Your task to perform on an android device: open wifi settings Image 0: 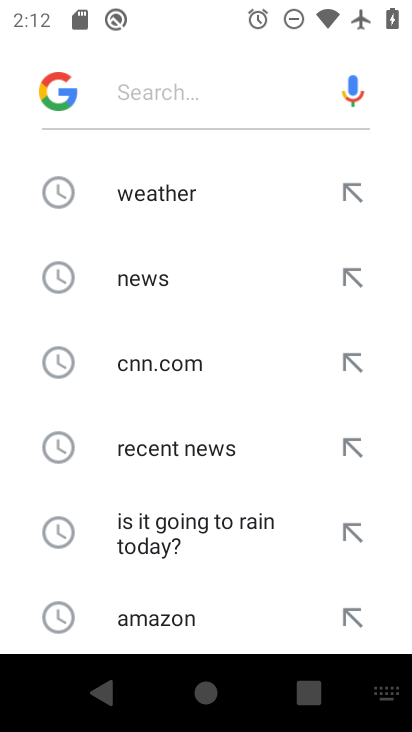
Step 0: press home button
Your task to perform on an android device: open wifi settings Image 1: 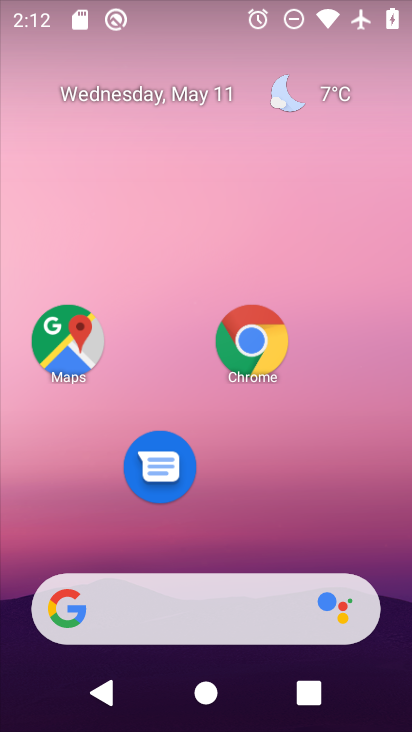
Step 1: drag from (164, 609) to (293, 116)
Your task to perform on an android device: open wifi settings Image 2: 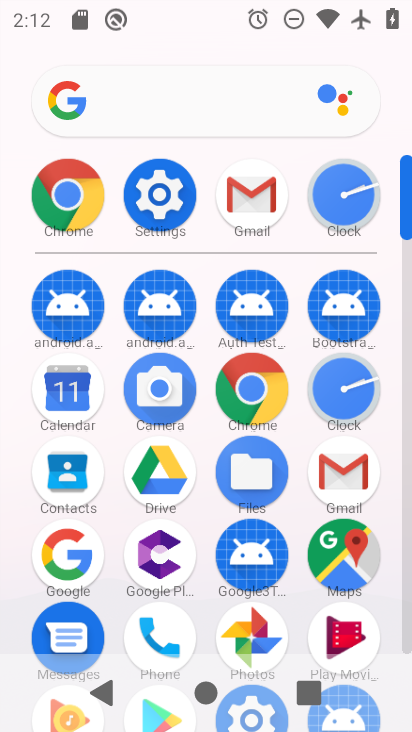
Step 2: click (167, 204)
Your task to perform on an android device: open wifi settings Image 3: 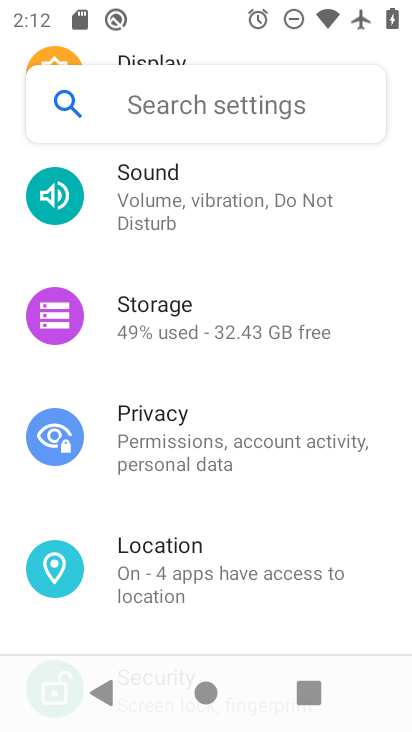
Step 3: drag from (297, 161) to (145, 562)
Your task to perform on an android device: open wifi settings Image 4: 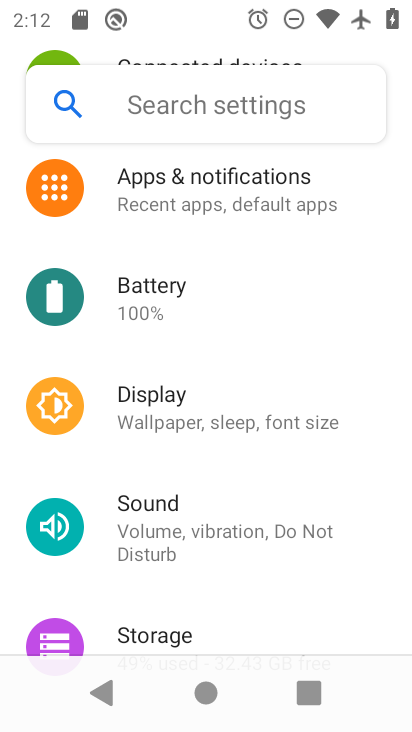
Step 4: drag from (273, 171) to (184, 479)
Your task to perform on an android device: open wifi settings Image 5: 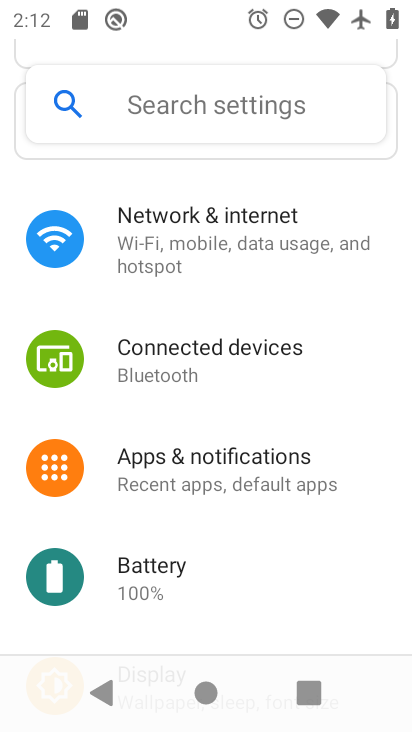
Step 5: click (244, 224)
Your task to perform on an android device: open wifi settings Image 6: 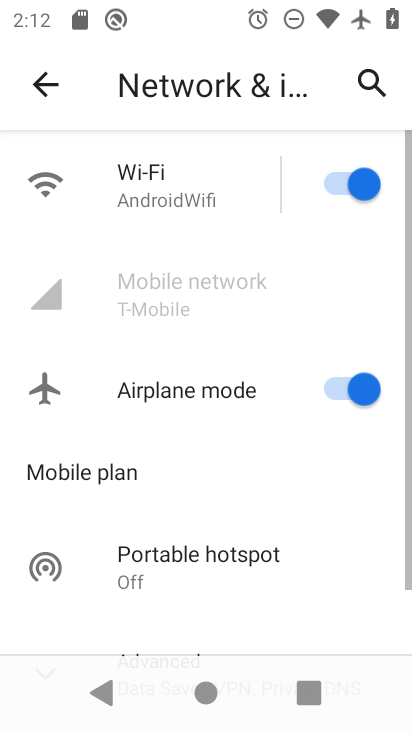
Step 6: click (167, 197)
Your task to perform on an android device: open wifi settings Image 7: 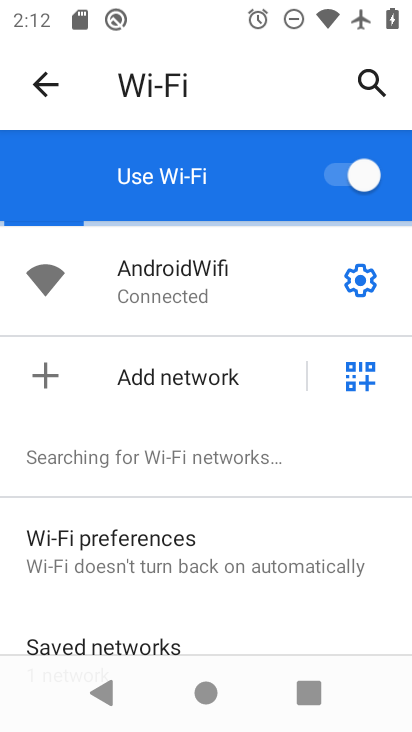
Step 7: task complete